Your task to perform on an android device: Open calendar and show me the first week of next month Image 0: 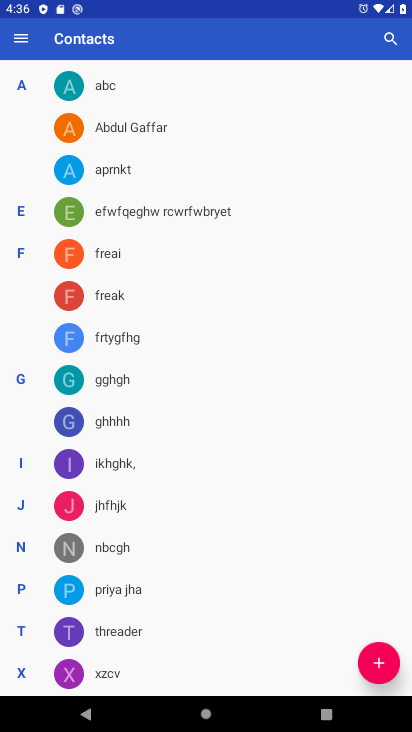
Step 0: press home button
Your task to perform on an android device: Open calendar and show me the first week of next month Image 1: 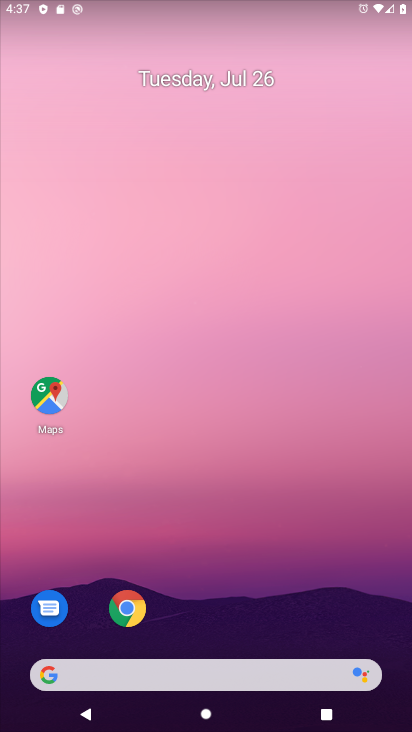
Step 1: drag from (396, 707) to (366, 156)
Your task to perform on an android device: Open calendar and show me the first week of next month Image 2: 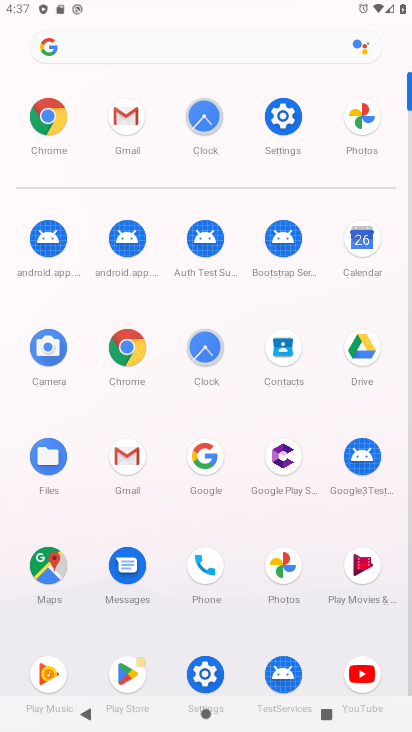
Step 2: click (361, 254)
Your task to perform on an android device: Open calendar and show me the first week of next month Image 3: 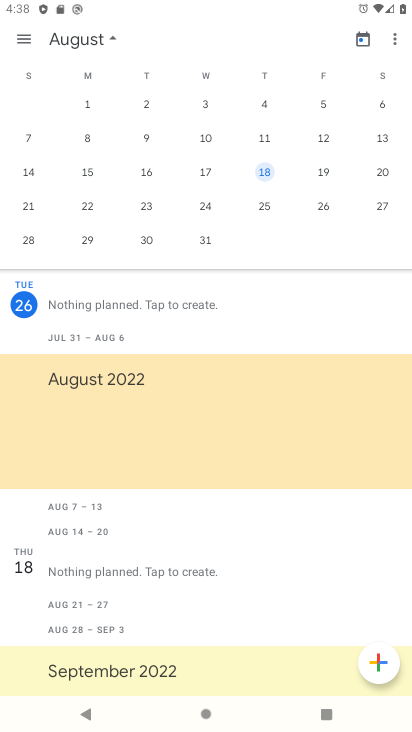
Step 3: drag from (45, 121) to (162, 149)
Your task to perform on an android device: Open calendar and show me the first week of next month Image 4: 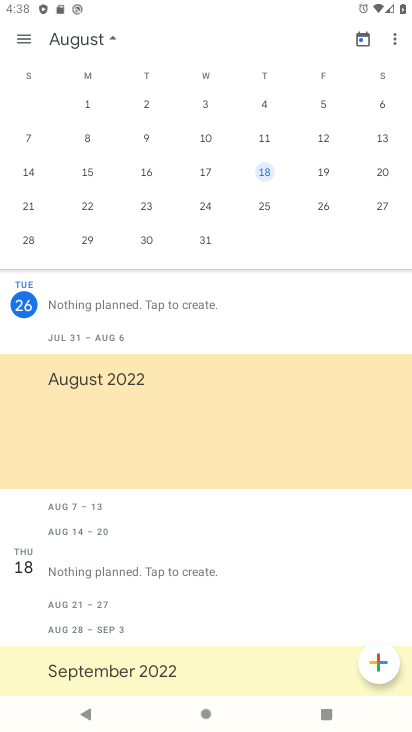
Step 4: click (200, 105)
Your task to perform on an android device: Open calendar and show me the first week of next month Image 5: 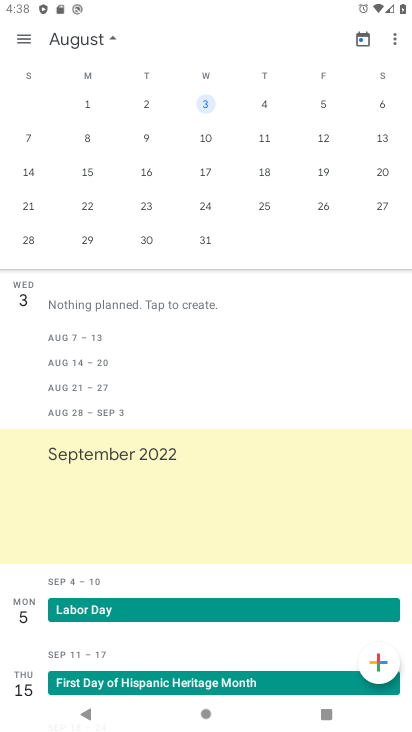
Step 5: click (24, 39)
Your task to perform on an android device: Open calendar and show me the first week of next month Image 6: 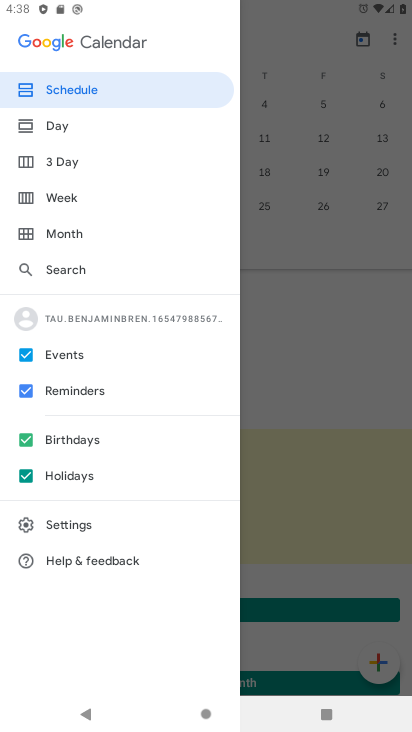
Step 6: click (60, 191)
Your task to perform on an android device: Open calendar and show me the first week of next month Image 7: 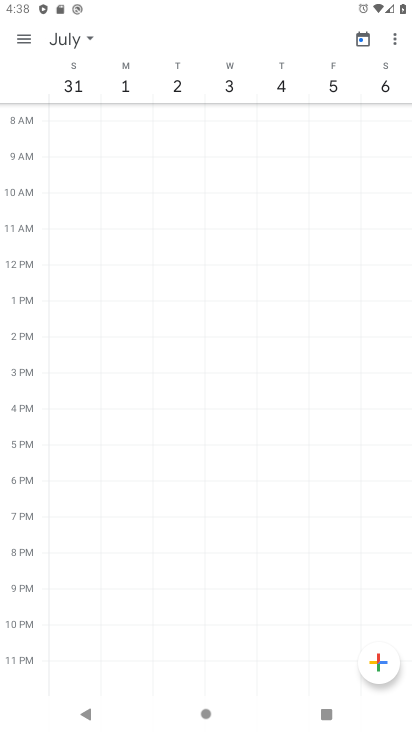
Step 7: click (21, 42)
Your task to perform on an android device: Open calendar and show me the first week of next month Image 8: 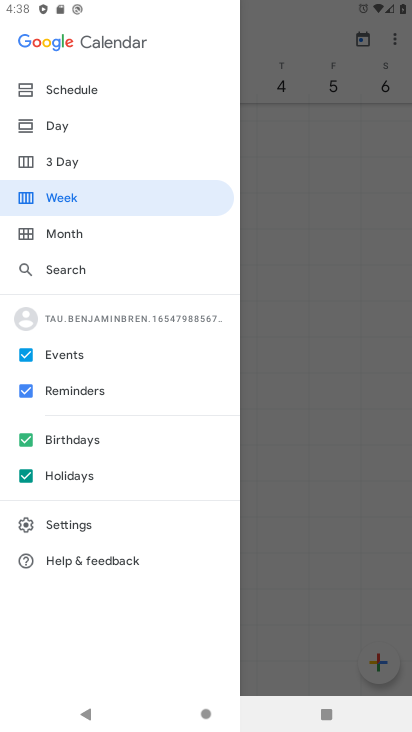
Step 8: click (63, 93)
Your task to perform on an android device: Open calendar and show me the first week of next month Image 9: 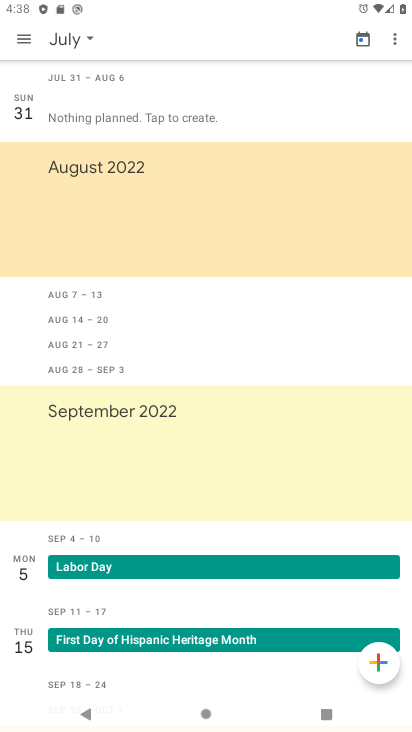
Step 9: task complete